Your task to perform on an android device: toggle improve location accuracy Image 0: 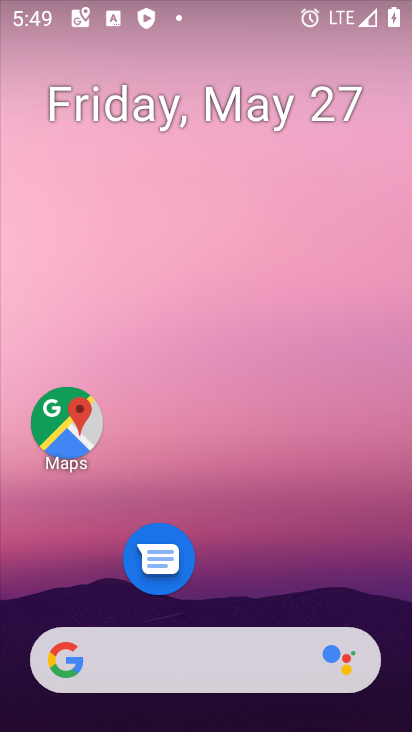
Step 0: drag from (152, 654) to (161, 160)
Your task to perform on an android device: toggle improve location accuracy Image 1: 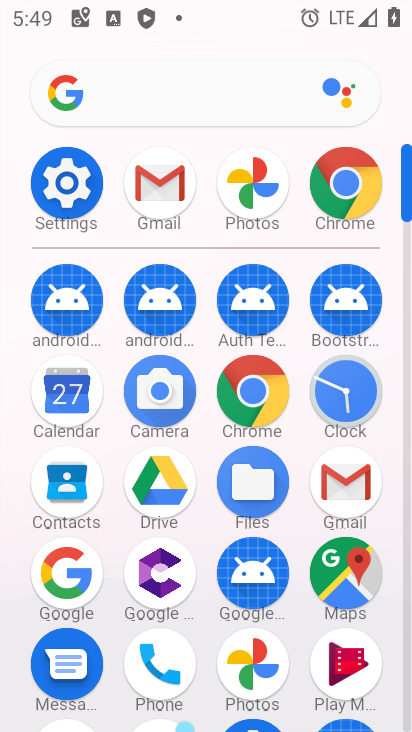
Step 1: click (69, 196)
Your task to perform on an android device: toggle improve location accuracy Image 2: 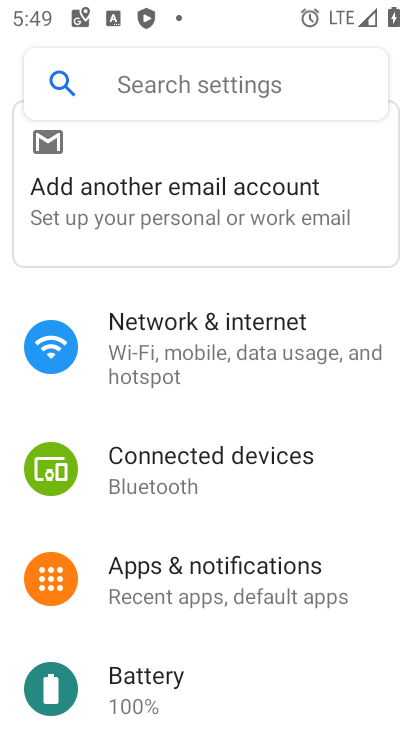
Step 2: drag from (259, 686) to (245, 156)
Your task to perform on an android device: toggle improve location accuracy Image 3: 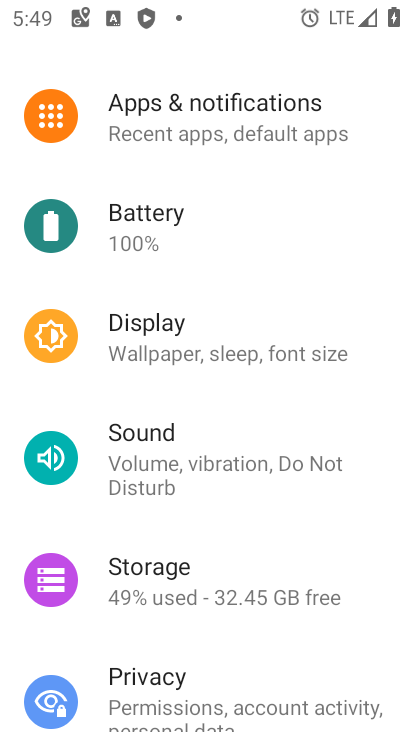
Step 3: drag from (284, 685) to (280, 283)
Your task to perform on an android device: toggle improve location accuracy Image 4: 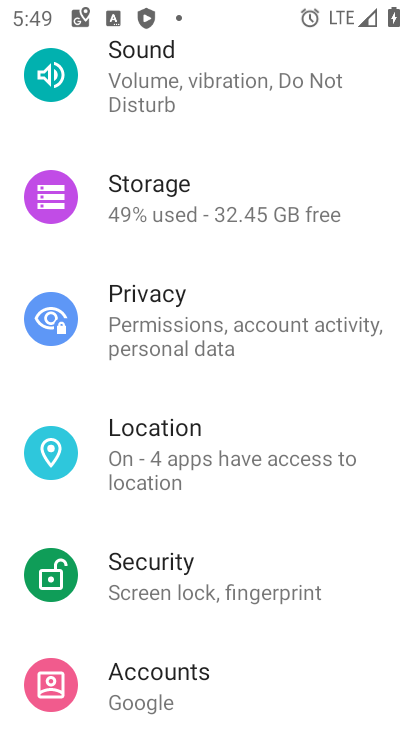
Step 4: click (252, 464)
Your task to perform on an android device: toggle improve location accuracy Image 5: 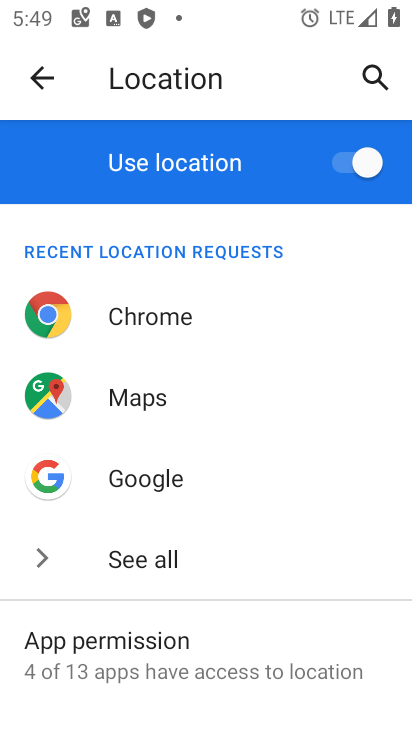
Step 5: drag from (230, 709) to (310, 230)
Your task to perform on an android device: toggle improve location accuracy Image 6: 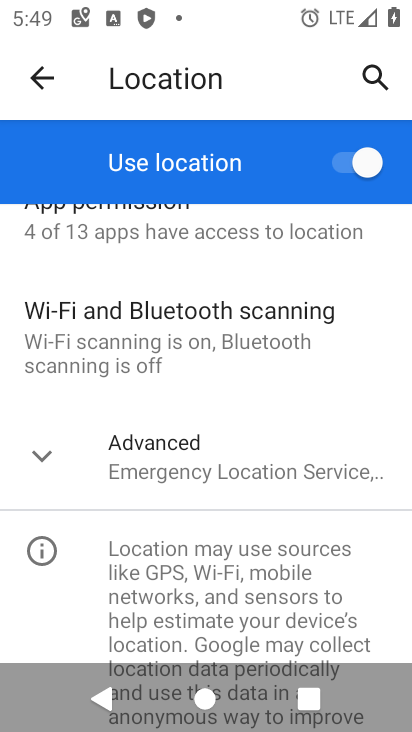
Step 6: click (223, 465)
Your task to perform on an android device: toggle improve location accuracy Image 7: 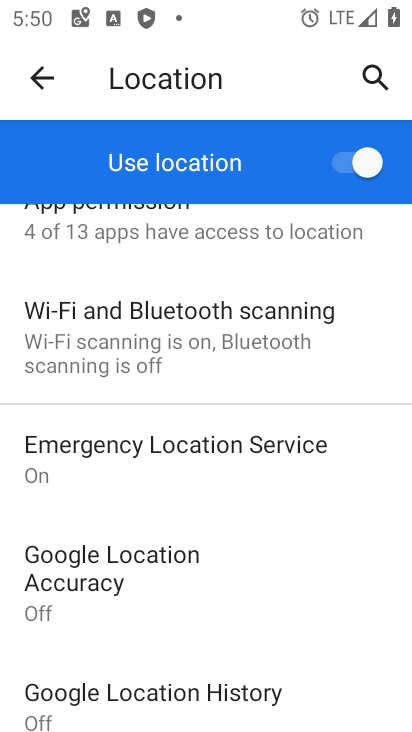
Step 7: click (193, 571)
Your task to perform on an android device: toggle improve location accuracy Image 8: 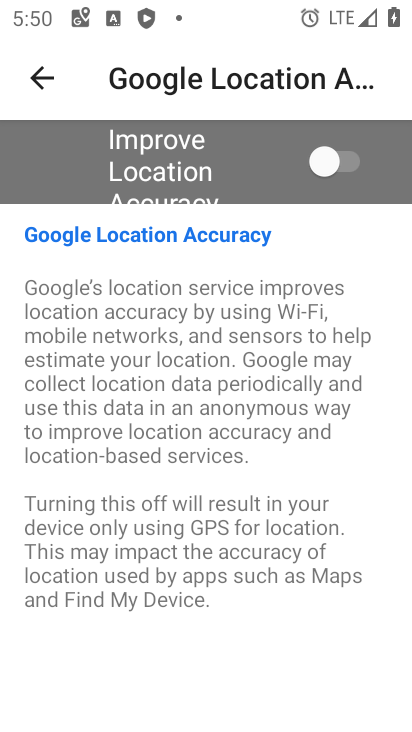
Step 8: click (348, 171)
Your task to perform on an android device: toggle improve location accuracy Image 9: 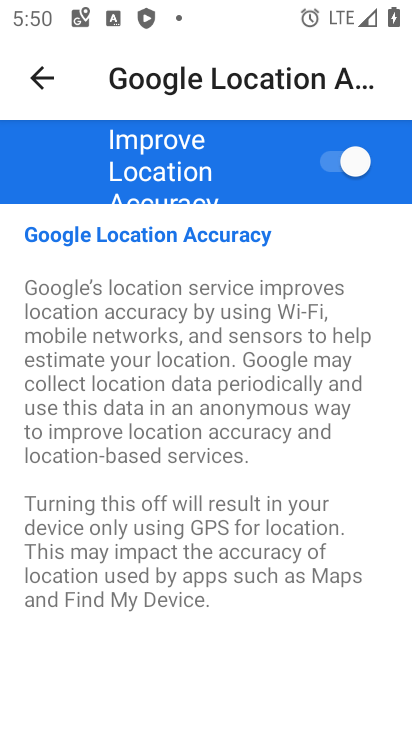
Step 9: task complete